Your task to perform on an android device: refresh tabs in the chrome app Image 0: 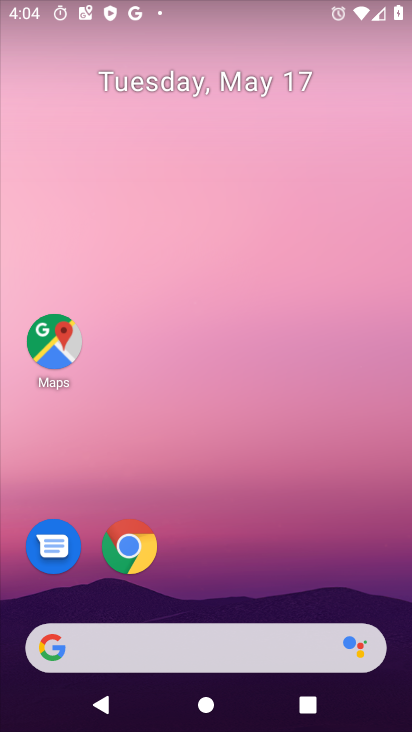
Step 0: drag from (396, 599) to (378, 270)
Your task to perform on an android device: refresh tabs in the chrome app Image 1: 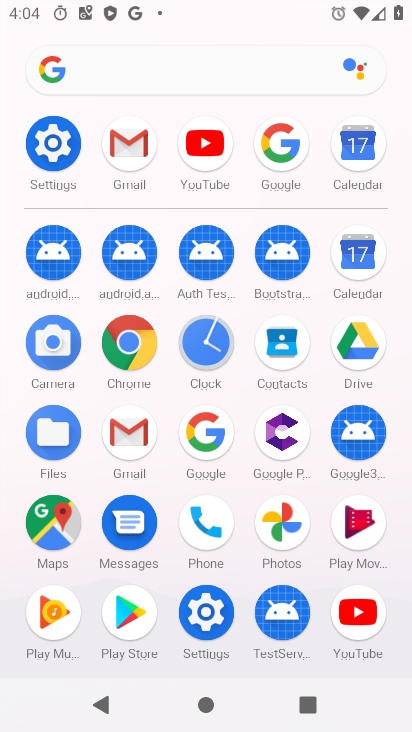
Step 1: click (119, 343)
Your task to perform on an android device: refresh tabs in the chrome app Image 2: 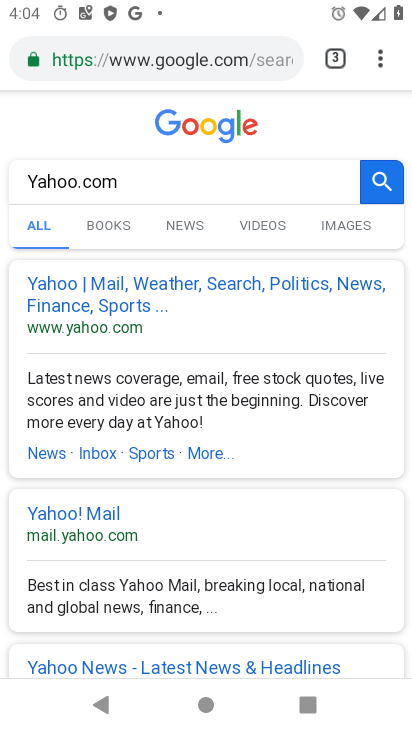
Step 2: click (378, 62)
Your task to perform on an android device: refresh tabs in the chrome app Image 3: 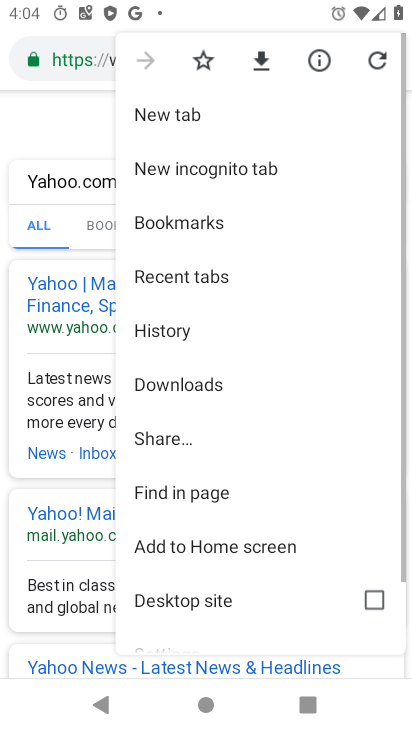
Step 3: click (378, 62)
Your task to perform on an android device: refresh tabs in the chrome app Image 4: 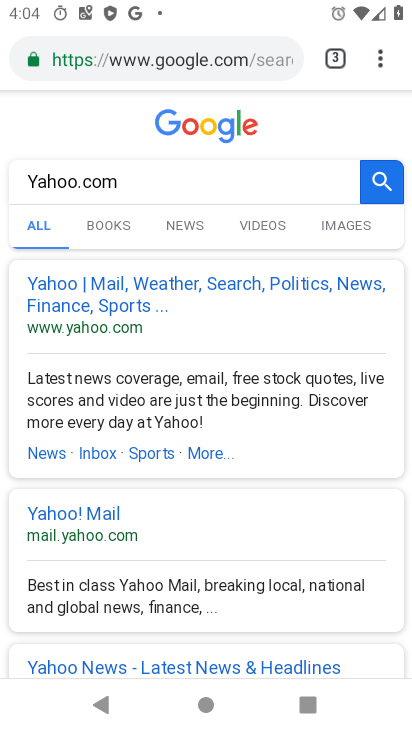
Step 4: task complete